Your task to perform on an android device: toggle sleep mode Image 0: 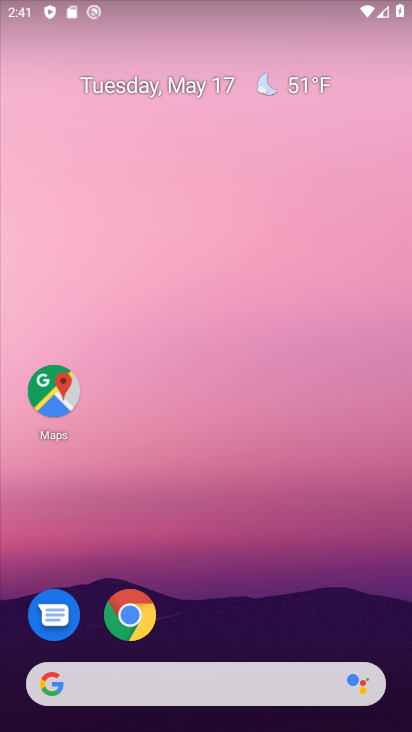
Step 0: drag from (220, 637) to (285, 90)
Your task to perform on an android device: toggle sleep mode Image 1: 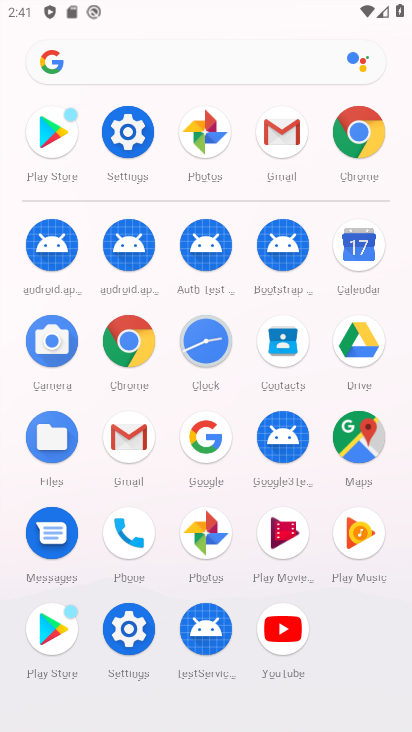
Step 1: click (124, 130)
Your task to perform on an android device: toggle sleep mode Image 2: 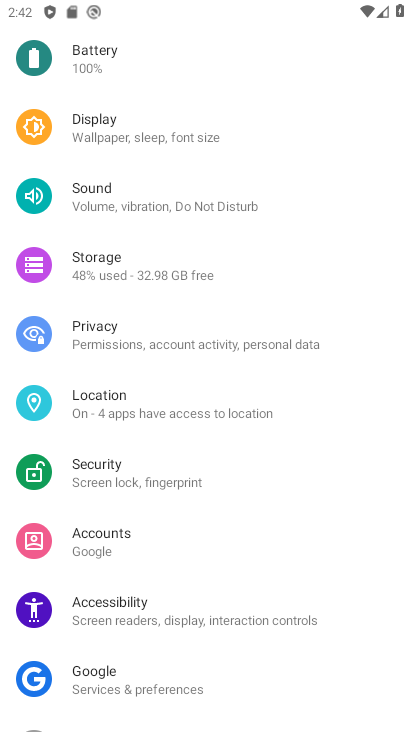
Step 2: click (136, 104)
Your task to perform on an android device: toggle sleep mode Image 3: 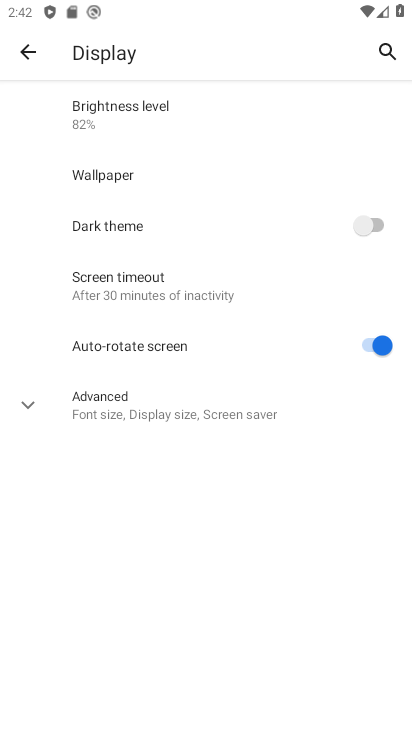
Step 3: click (32, 398)
Your task to perform on an android device: toggle sleep mode Image 4: 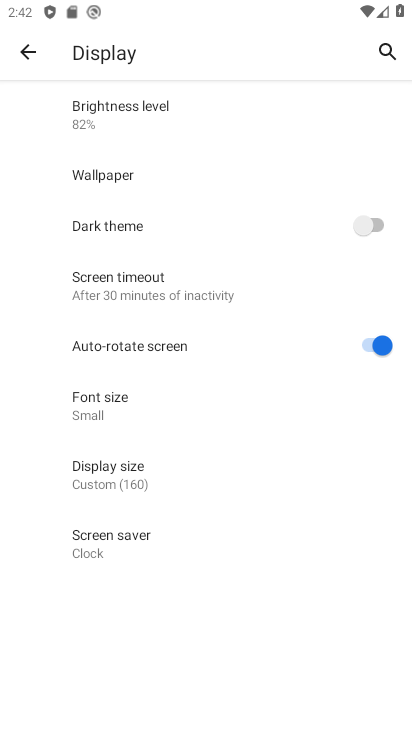
Step 4: click (31, 56)
Your task to perform on an android device: toggle sleep mode Image 5: 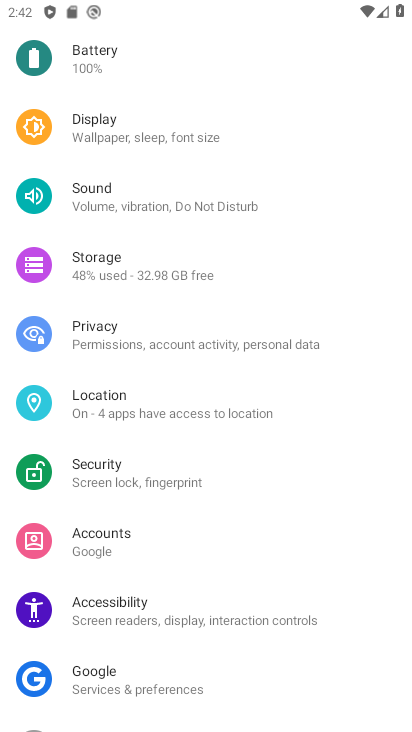
Step 5: task complete